Your task to perform on an android device: What is the recent news? Image 0: 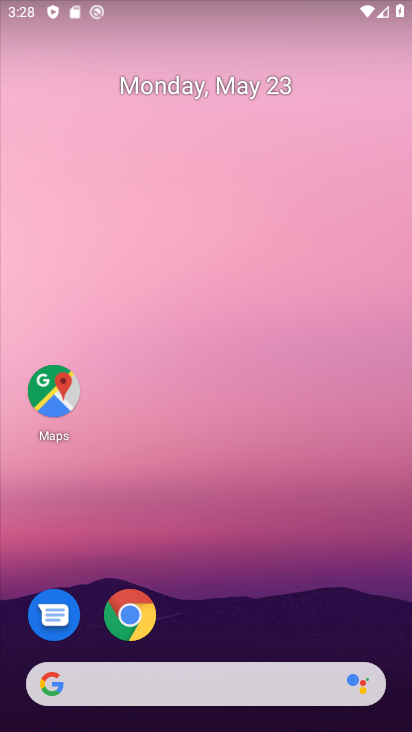
Step 0: drag from (1, 247) to (363, 270)
Your task to perform on an android device: What is the recent news? Image 1: 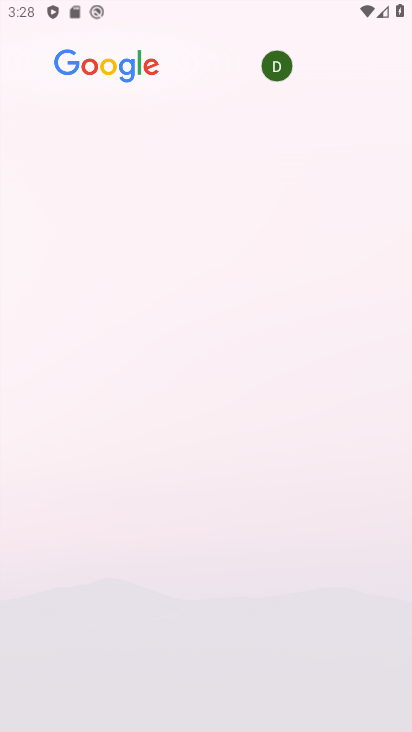
Step 1: task complete